Your task to perform on an android device: open chrome privacy settings Image 0: 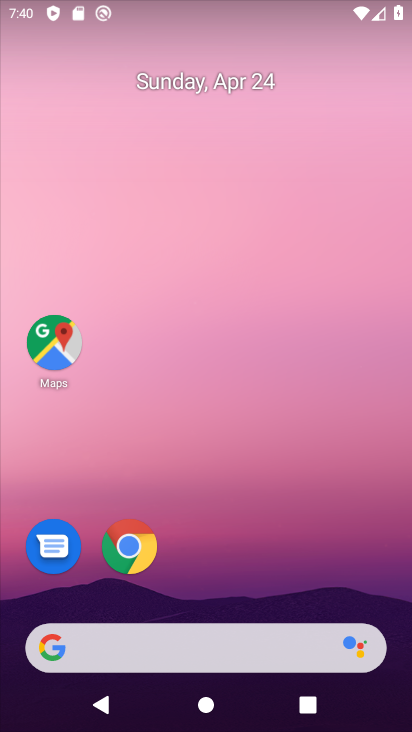
Step 0: drag from (207, 573) to (206, 100)
Your task to perform on an android device: open chrome privacy settings Image 1: 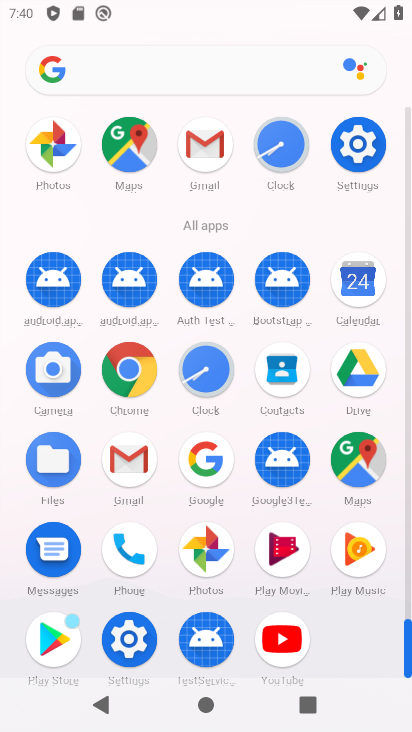
Step 1: click (126, 369)
Your task to perform on an android device: open chrome privacy settings Image 2: 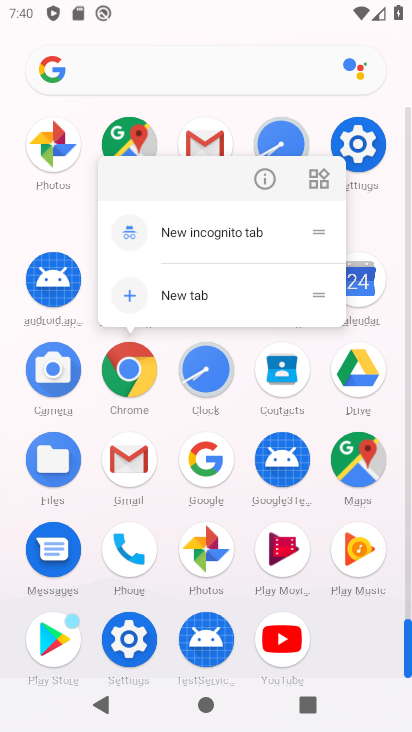
Step 2: click (265, 172)
Your task to perform on an android device: open chrome privacy settings Image 3: 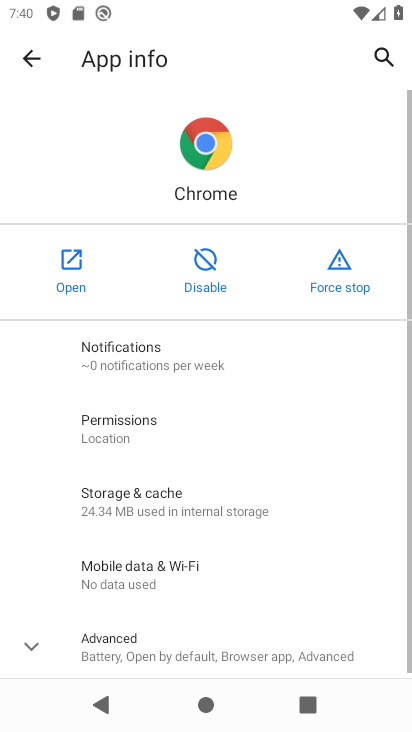
Step 3: click (54, 279)
Your task to perform on an android device: open chrome privacy settings Image 4: 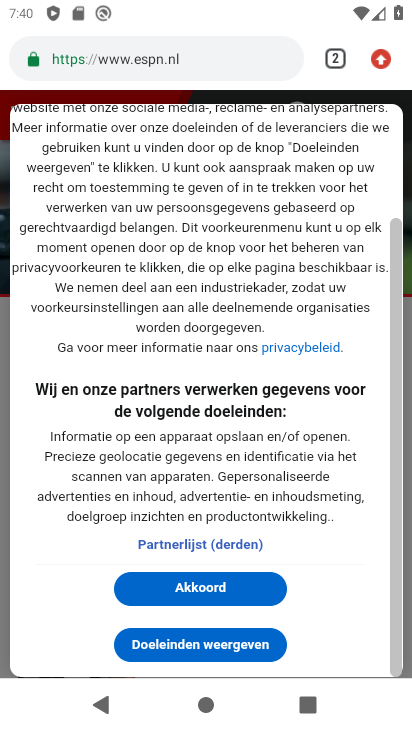
Step 4: drag from (215, 481) to (216, 232)
Your task to perform on an android device: open chrome privacy settings Image 5: 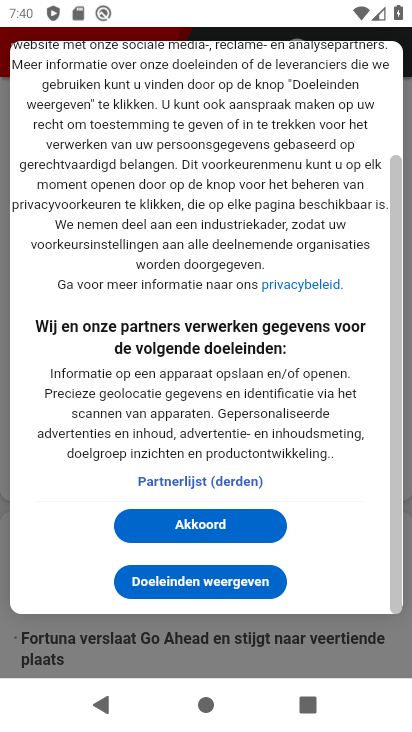
Step 5: drag from (245, 449) to (204, 70)
Your task to perform on an android device: open chrome privacy settings Image 6: 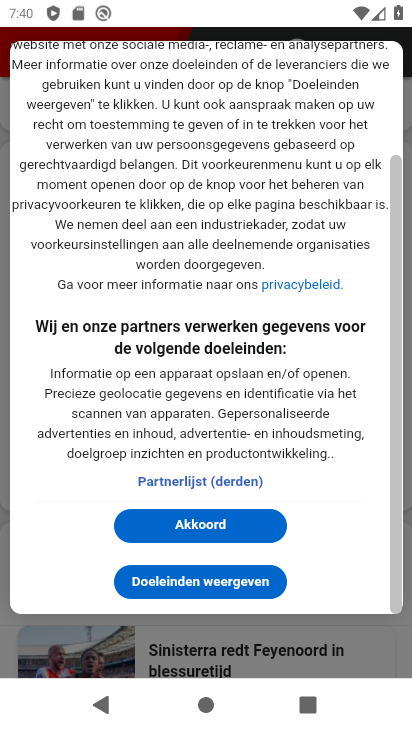
Step 6: drag from (193, 105) to (362, 717)
Your task to perform on an android device: open chrome privacy settings Image 7: 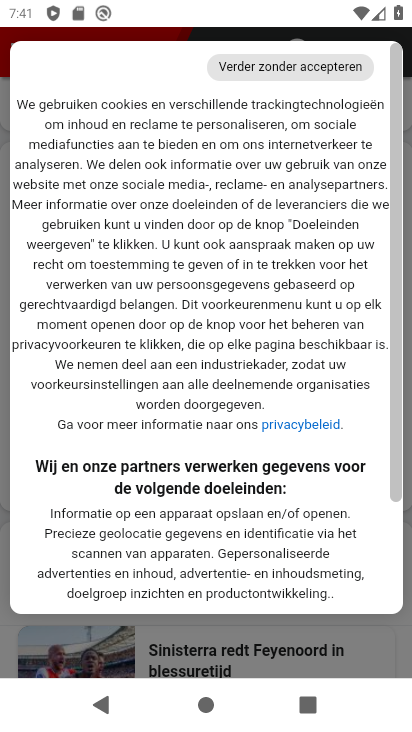
Step 7: drag from (239, 195) to (272, 384)
Your task to perform on an android device: open chrome privacy settings Image 8: 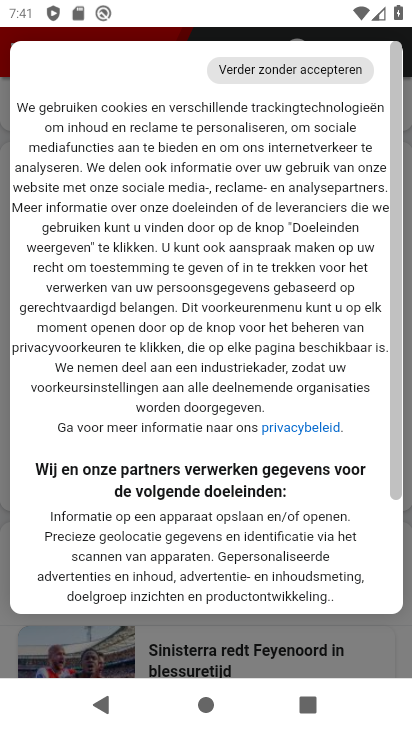
Step 8: drag from (286, 171) to (308, 705)
Your task to perform on an android device: open chrome privacy settings Image 9: 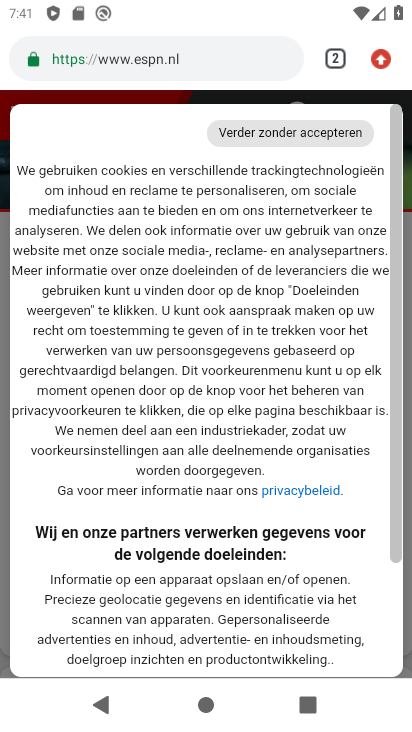
Step 9: drag from (377, 68) to (264, 580)
Your task to perform on an android device: open chrome privacy settings Image 10: 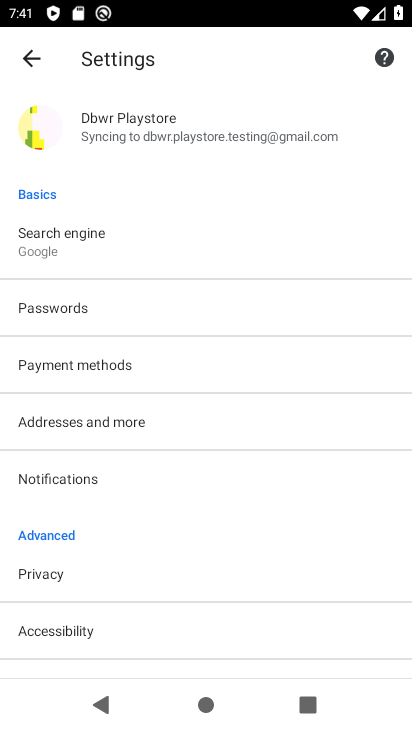
Step 10: drag from (150, 564) to (202, 342)
Your task to perform on an android device: open chrome privacy settings Image 11: 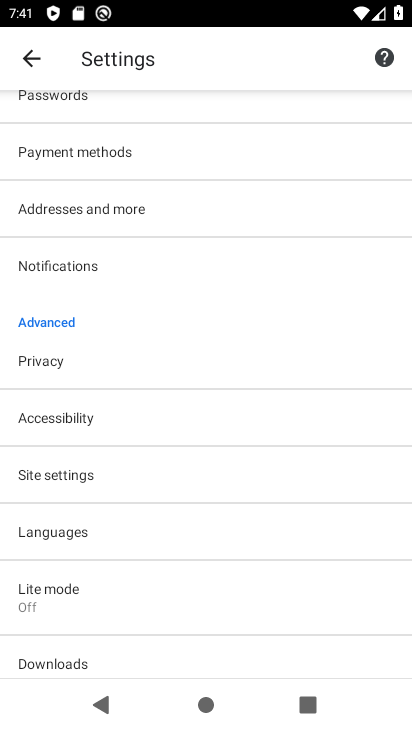
Step 11: click (70, 349)
Your task to perform on an android device: open chrome privacy settings Image 12: 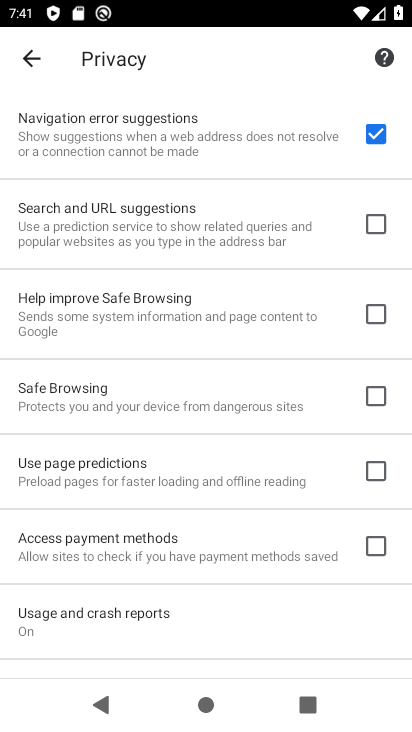
Step 12: task complete